Your task to perform on an android device: all mails in gmail Image 0: 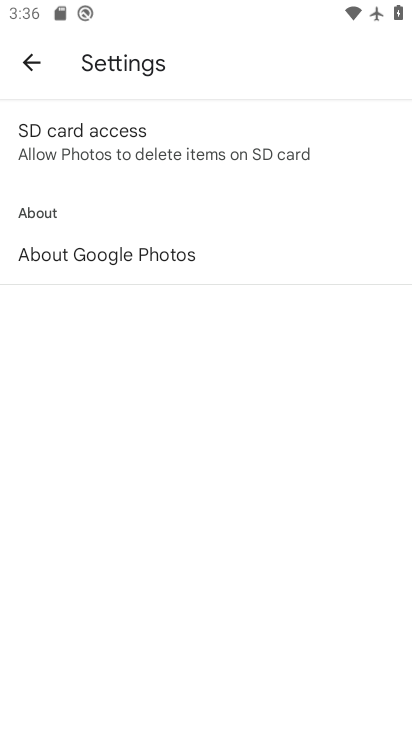
Step 0: press home button
Your task to perform on an android device: all mails in gmail Image 1: 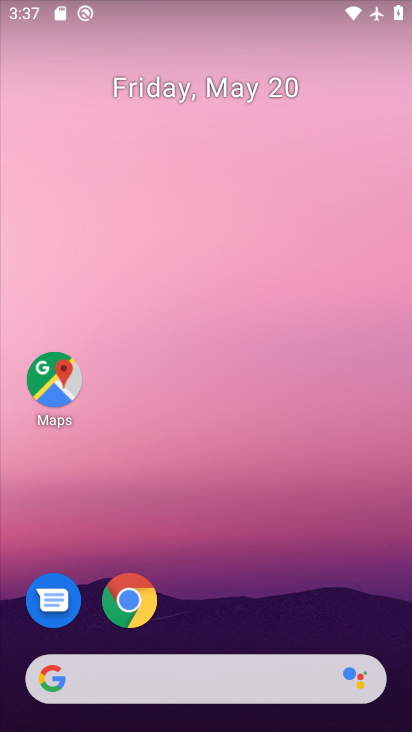
Step 1: drag from (245, 353) to (169, 17)
Your task to perform on an android device: all mails in gmail Image 2: 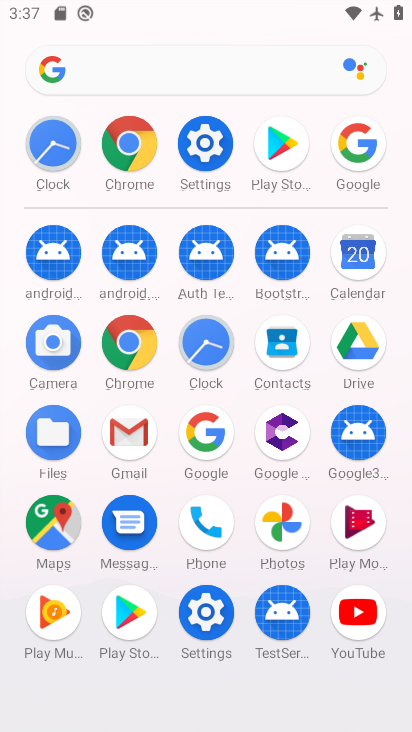
Step 2: click (127, 430)
Your task to perform on an android device: all mails in gmail Image 3: 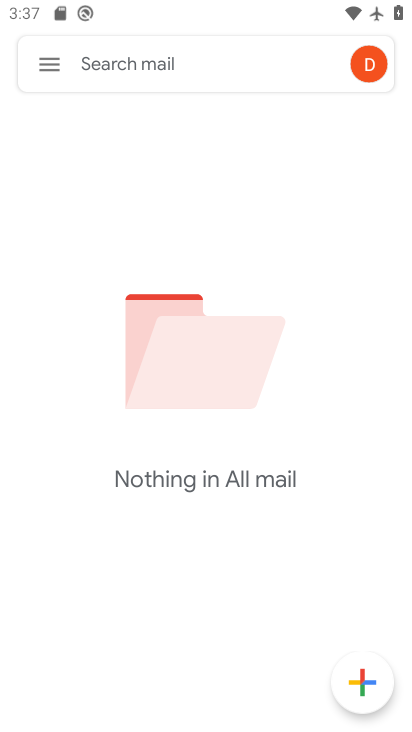
Step 3: task complete